Your task to perform on an android device: open chrome privacy settings Image 0: 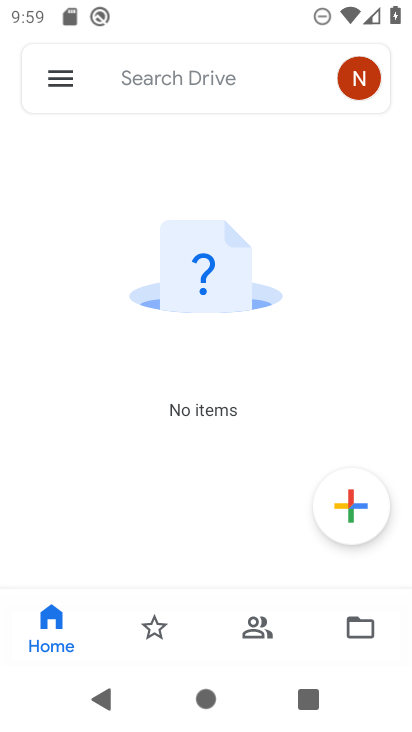
Step 0: press home button
Your task to perform on an android device: open chrome privacy settings Image 1: 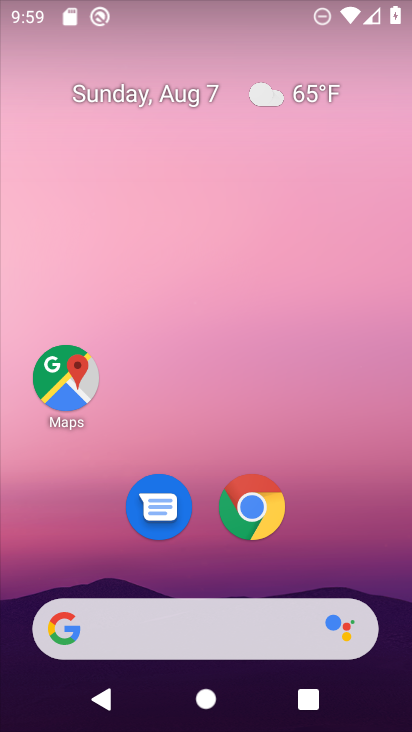
Step 1: drag from (345, 484) to (185, 4)
Your task to perform on an android device: open chrome privacy settings Image 2: 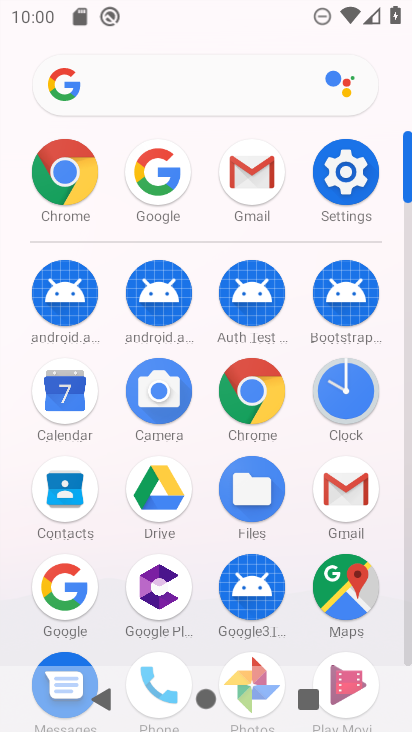
Step 2: click (258, 393)
Your task to perform on an android device: open chrome privacy settings Image 3: 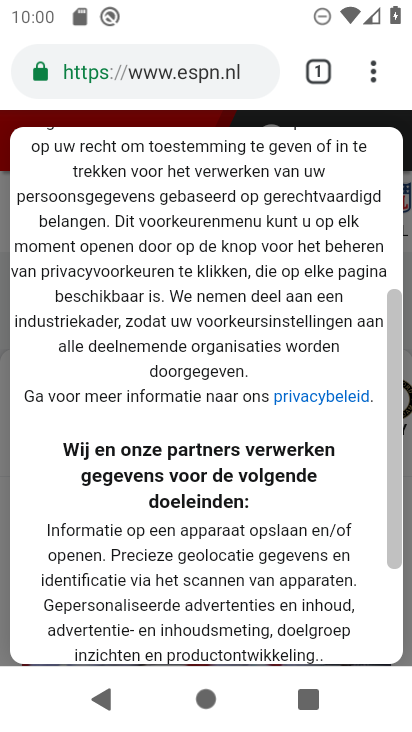
Step 3: drag from (387, 51) to (172, 511)
Your task to perform on an android device: open chrome privacy settings Image 4: 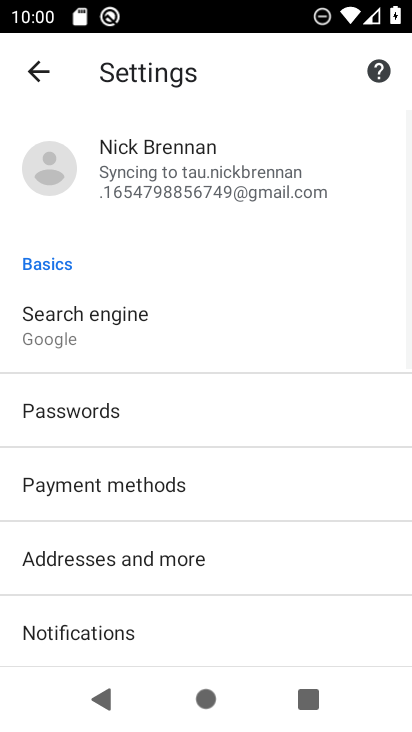
Step 4: drag from (293, 573) to (339, 138)
Your task to perform on an android device: open chrome privacy settings Image 5: 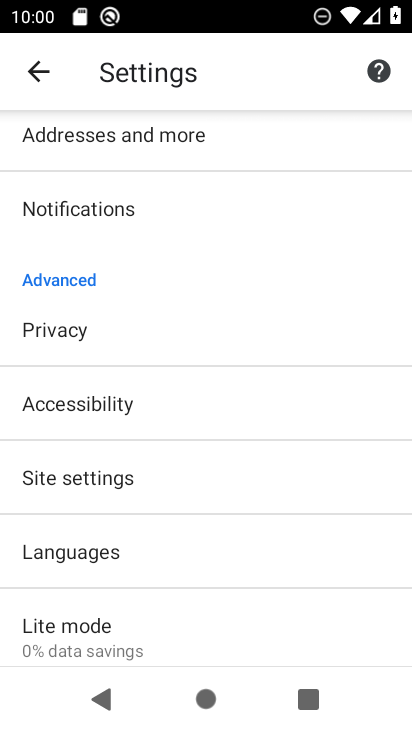
Step 5: drag from (261, 553) to (258, 238)
Your task to perform on an android device: open chrome privacy settings Image 6: 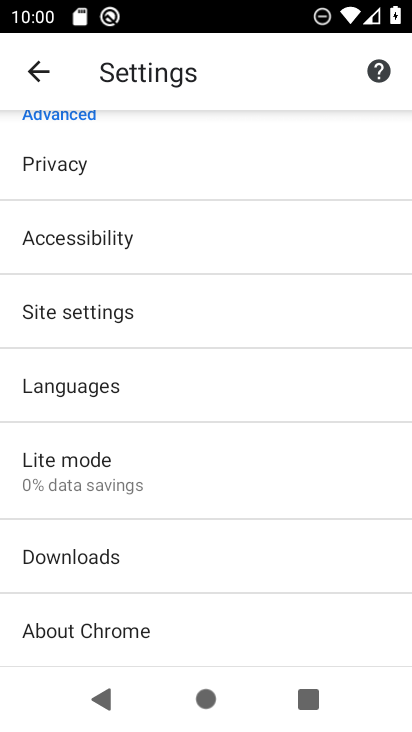
Step 6: click (79, 150)
Your task to perform on an android device: open chrome privacy settings Image 7: 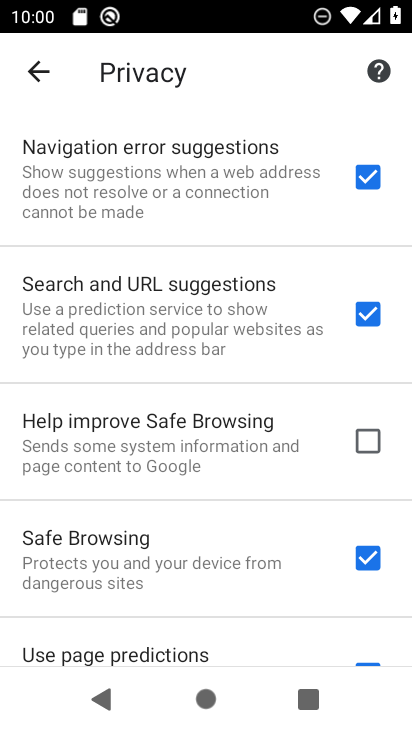
Step 7: task complete